Your task to perform on an android device: Add "asus zenbook" to the cart on target.com Image 0: 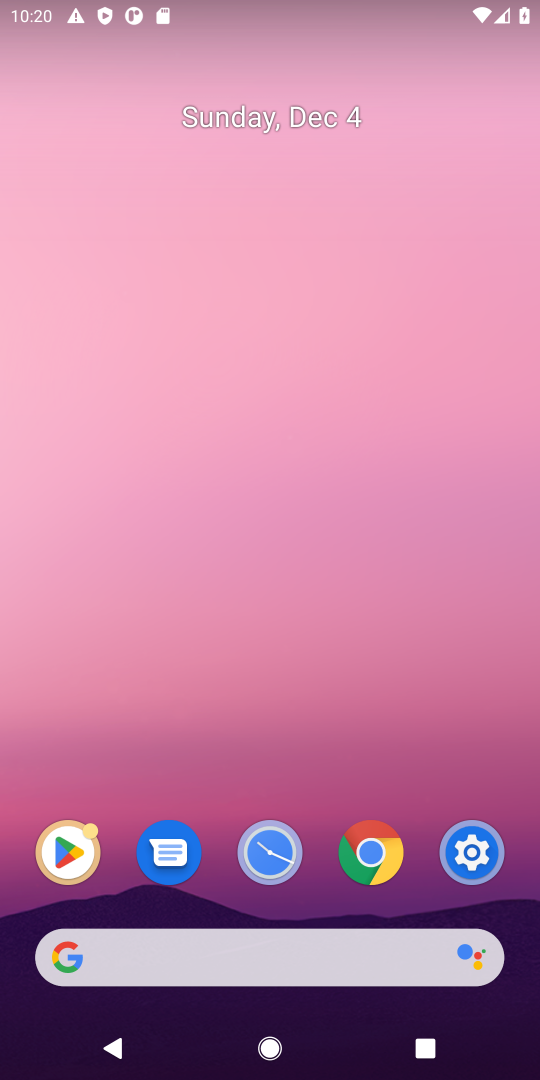
Step 0: drag from (349, 907) to (344, 194)
Your task to perform on an android device: Add "asus zenbook" to the cart on target.com Image 1: 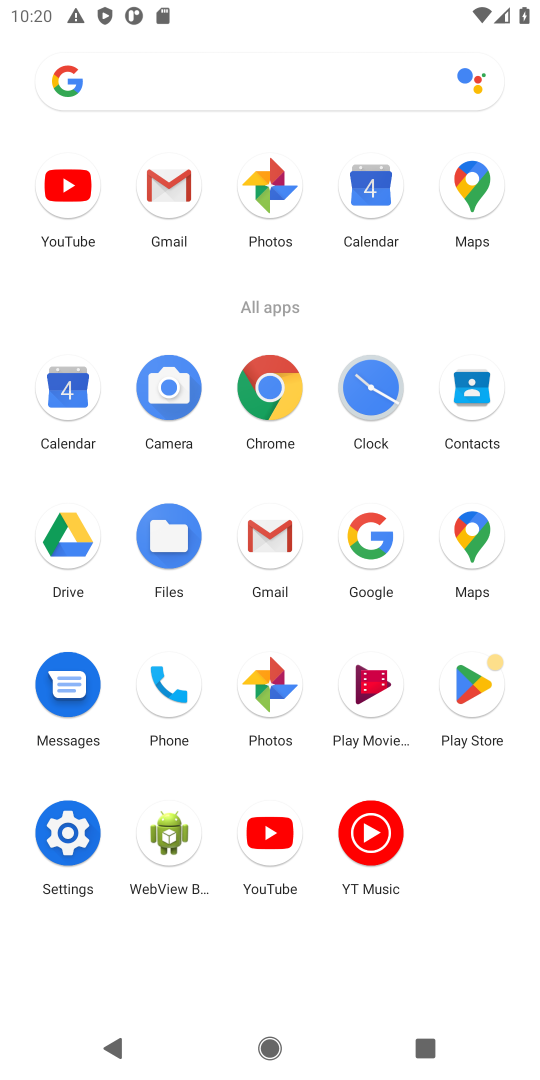
Step 1: click (368, 546)
Your task to perform on an android device: Add "asus zenbook" to the cart on target.com Image 2: 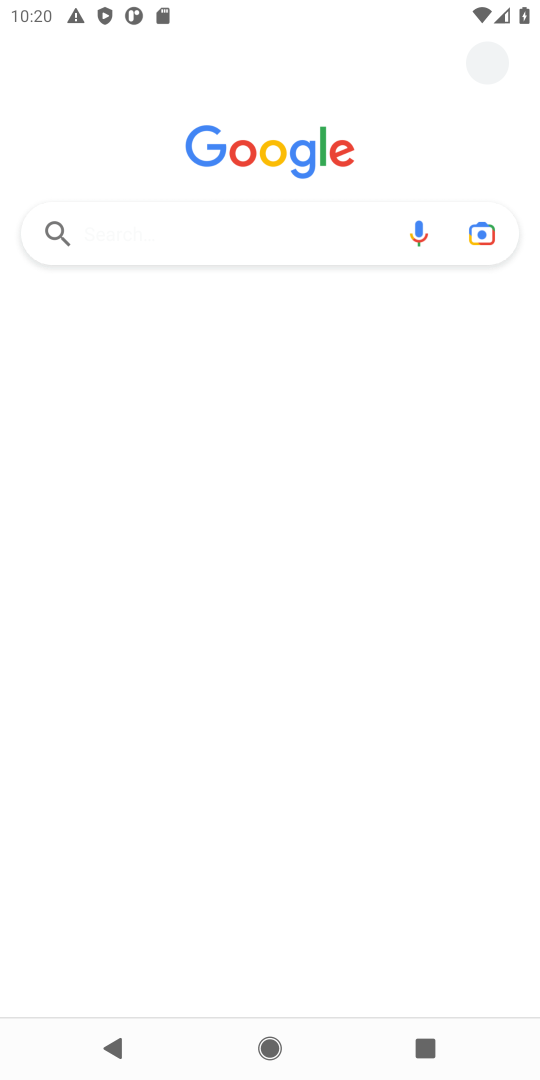
Step 2: click (378, 533)
Your task to perform on an android device: Add "asus zenbook" to the cart on target.com Image 3: 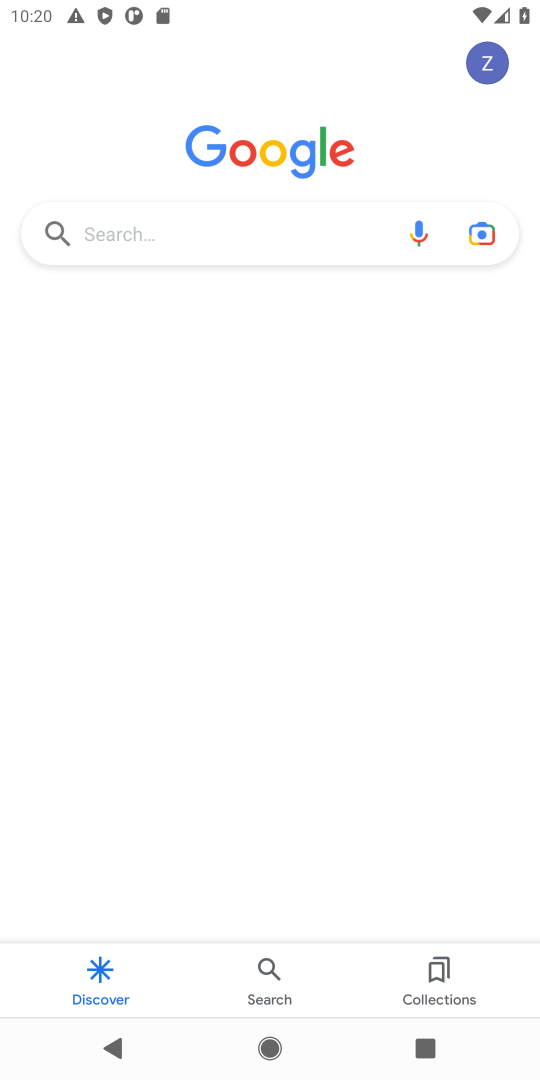
Step 3: click (170, 220)
Your task to perform on an android device: Add "asus zenbook" to the cart on target.com Image 4: 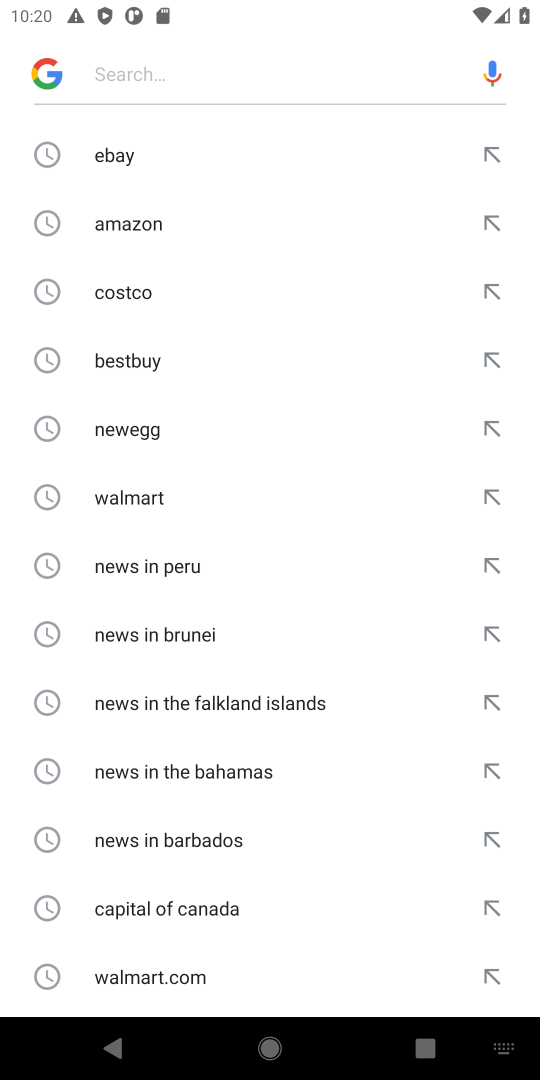
Step 4: type "target"
Your task to perform on an android device: Add "asus zenbook" to the cart on target.com Image 5: 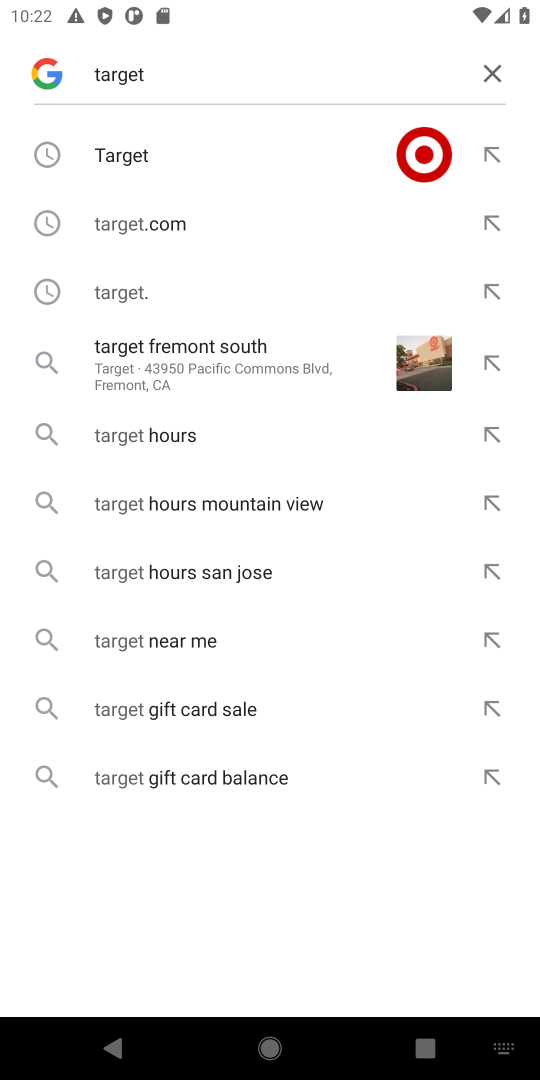
Step 5: click (83, 157)
Your task to perform on an android device: Add "asus zenbook" to the cart on target.com Image 6: 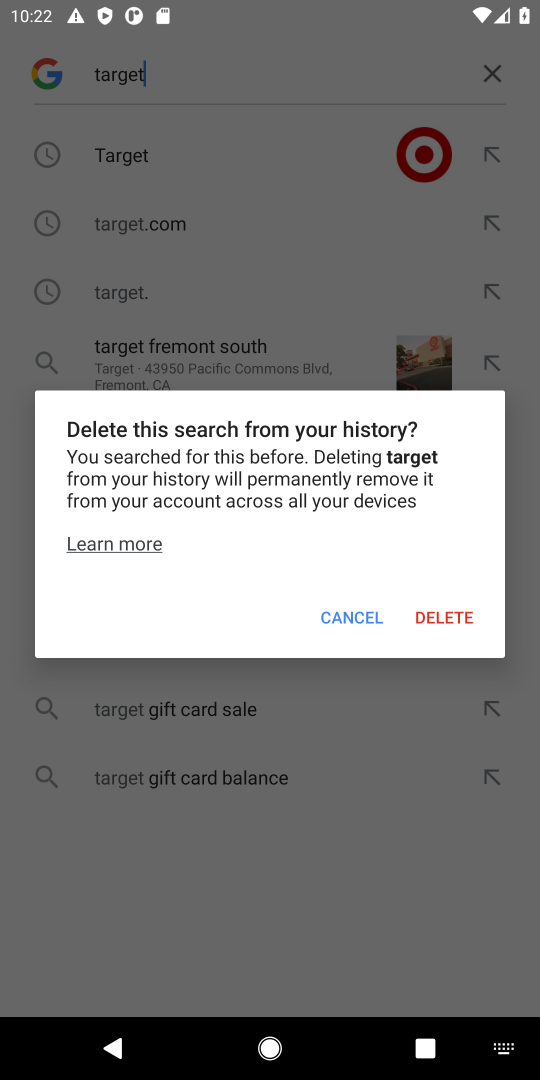
Step 6: click (353, 617)
Your task to perform on an android device: Add "asus zenbook" to the cart on target.com Image 7: 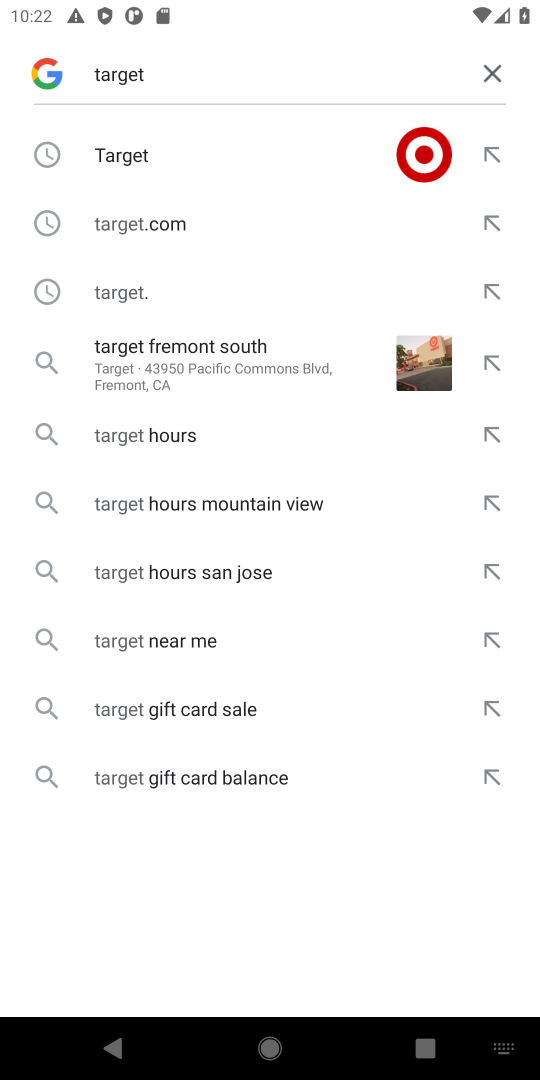
Step 7: click (132, 151)
Your task to perform on an android device: Add "asus zenbook" to the cart on target.com Image 8: 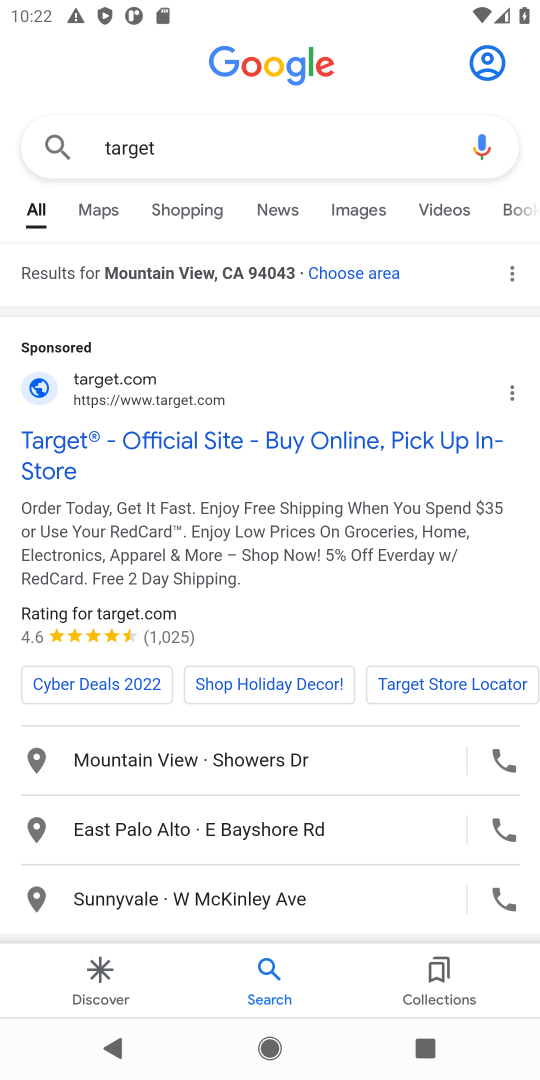
Step 8: click (188, 425)
Your task to perform on an android device: Add "asus zenbook" to the cart on target.com Image 9: 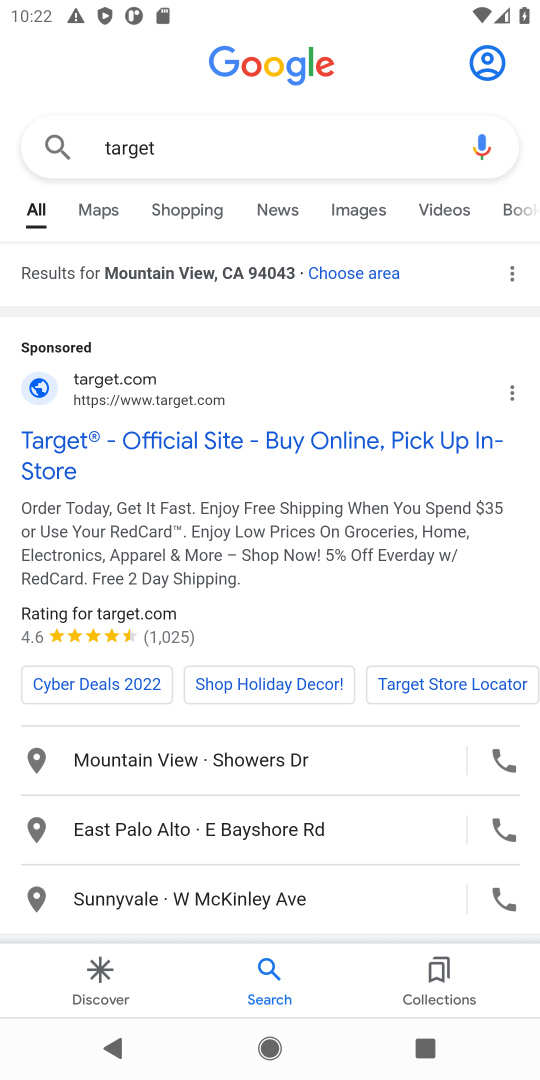
Step 9: click (338, 445)
Your task to perform on an android device: Add "asus zenbook" to the cart on target.com Image 10: 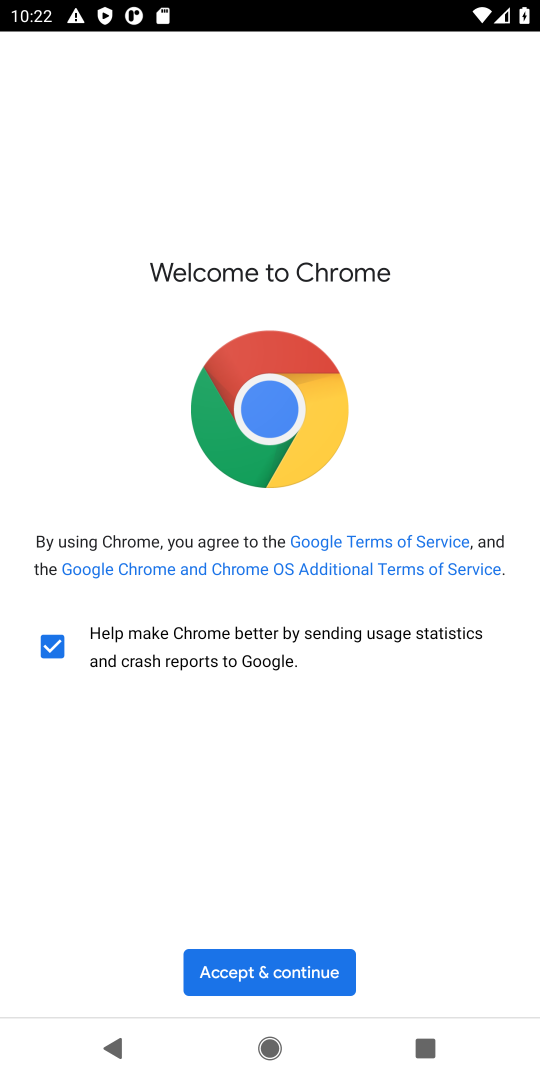
Step 10: click (285, 982)
Your task to perform on an android device: Add "asus zenbook" to the cart on target.com Image 11: 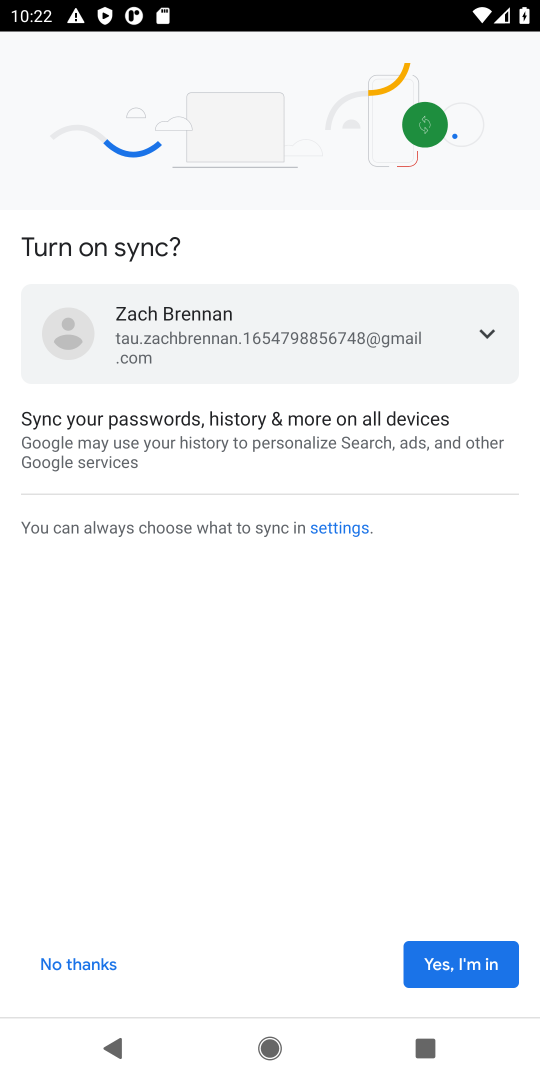
Step 11: click (439, 963)
Your task to perform on an android device: Add "asus zenbook" to the cart on target.com Image 12: 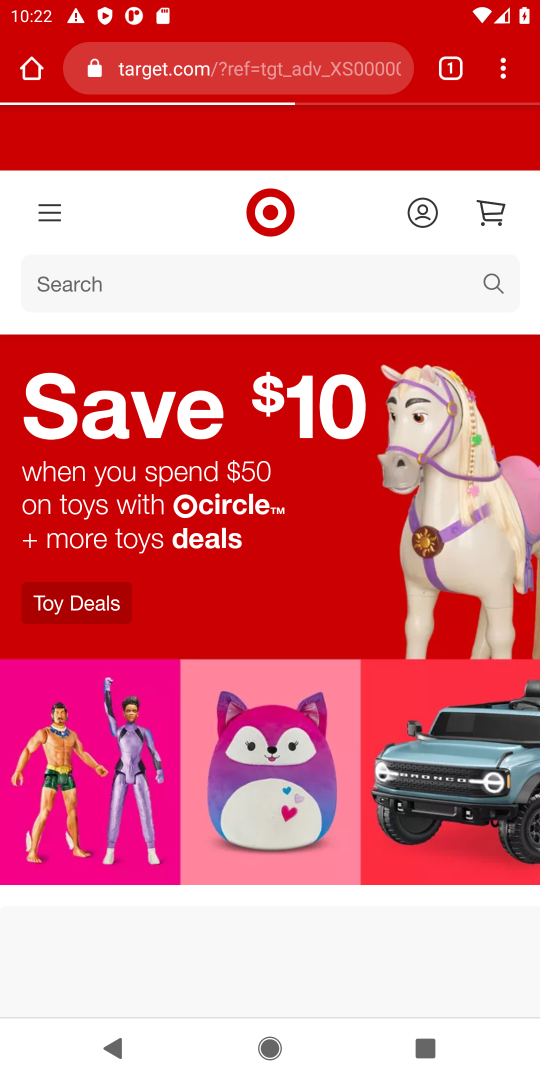
Step 12: click (135, 263)
Your task to perform on an android device: Add "asus zenbook" to the cart on target.com Image 13: 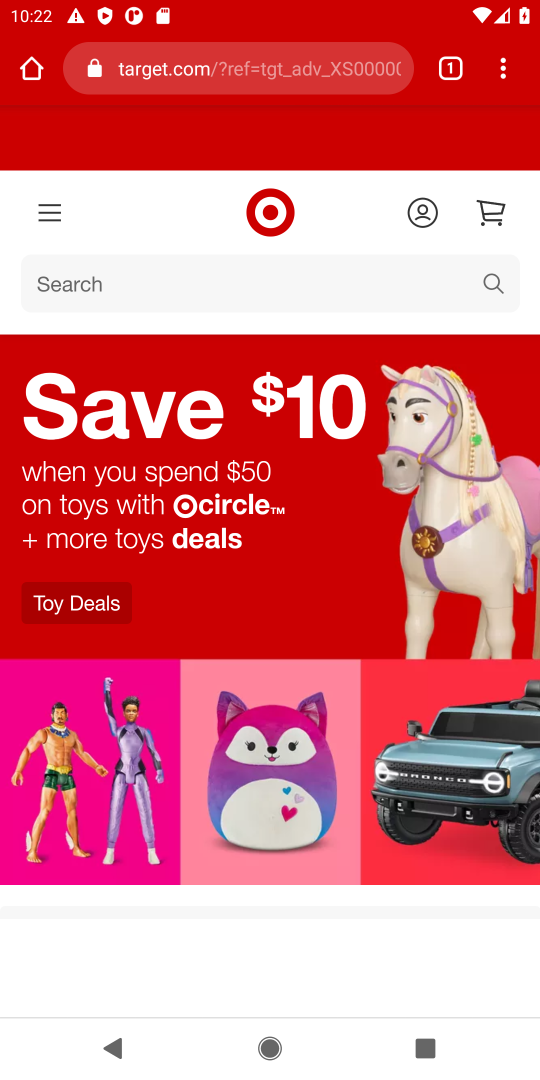
Step 13: click (484, 283)
Your task to perform on an android device: Add "asus zenbook" to the cart on target.com Image 14: 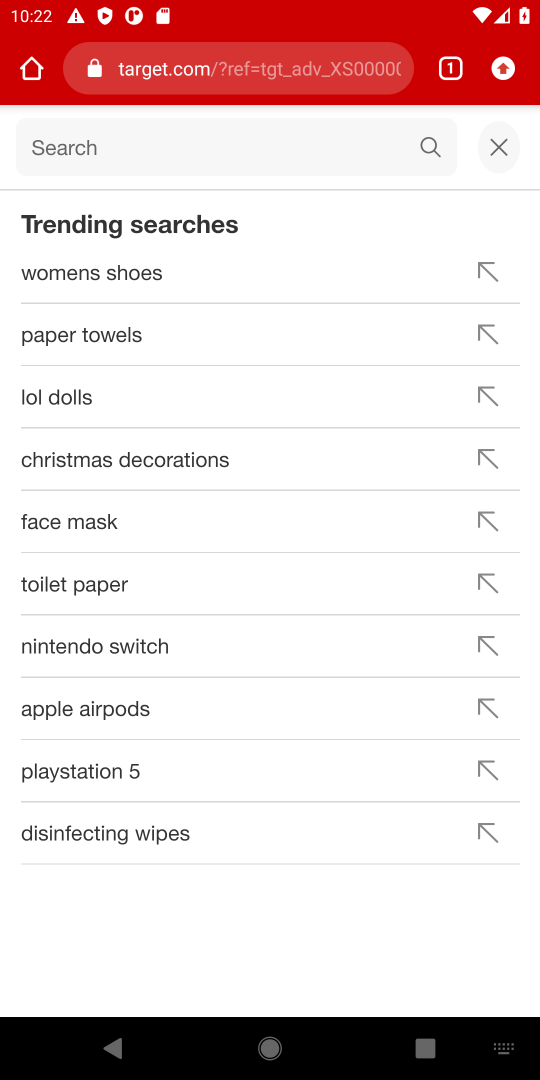
Step 14: type "asus zenbook"
Your task to perform on an android device: Add "asus zenbook" to the cart on target.com Image 15: 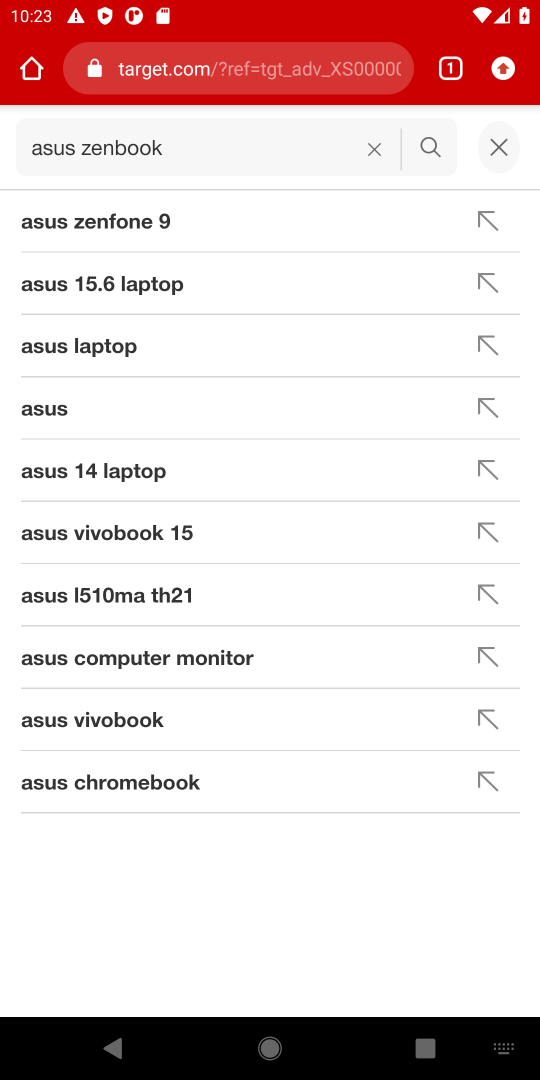
Step 15: click (158, 216)
Your task to perform on an android device: Add "asus zenbook" to the cart on target.com Image 16: 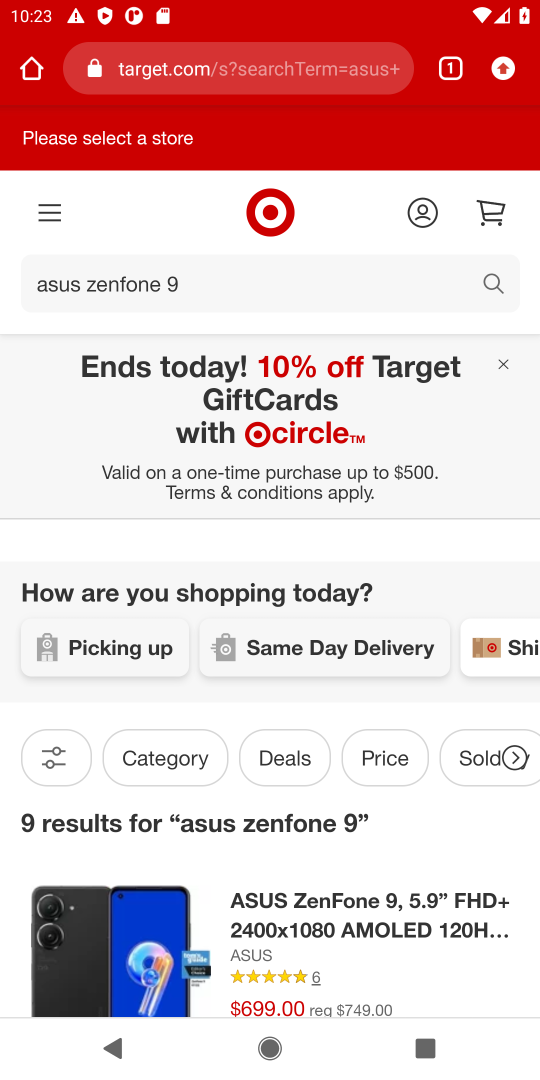
Step 16: drag from (258, 910) to (259, 526)
Your task to perform on an android device: Add "asus zenbook" to the cart on target.com Image 17: 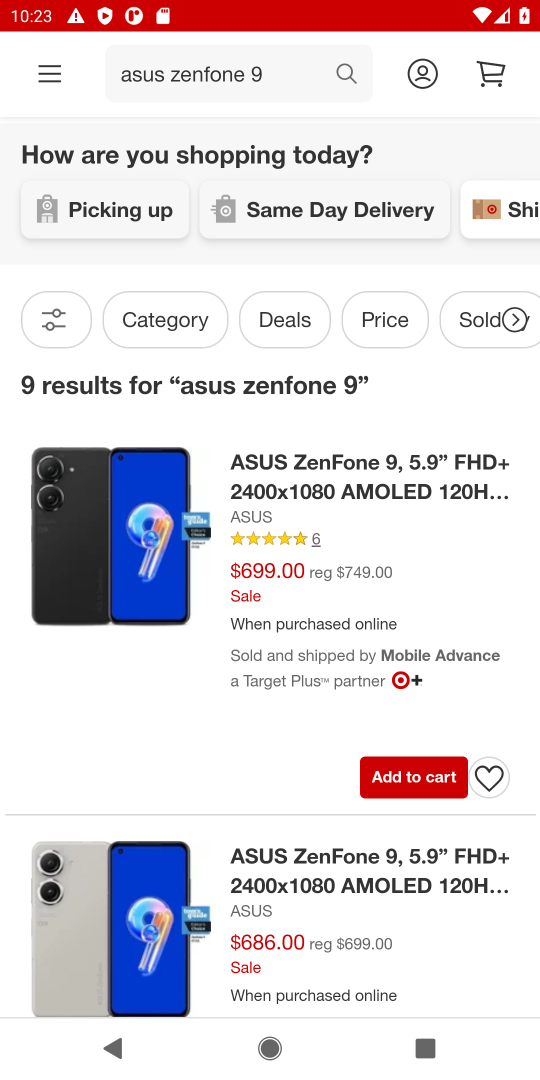
Step 17: click (396, 775)
Your task to perform on an android device: Add "asus zenbook" to the cart on target.com Image 18: 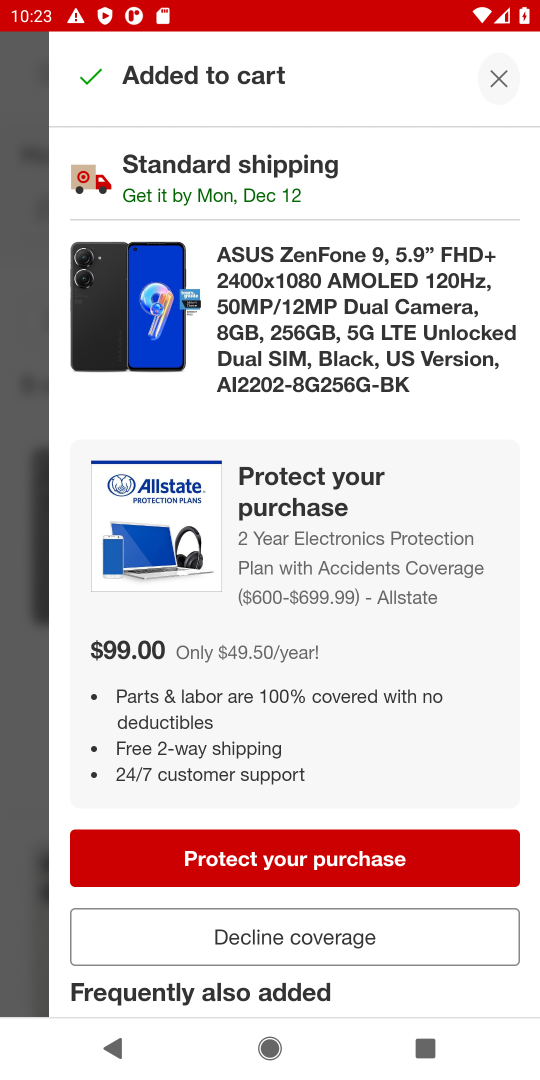
Step 18: task complete